Your task to perform on an android device: all mails in gmail Image 0: 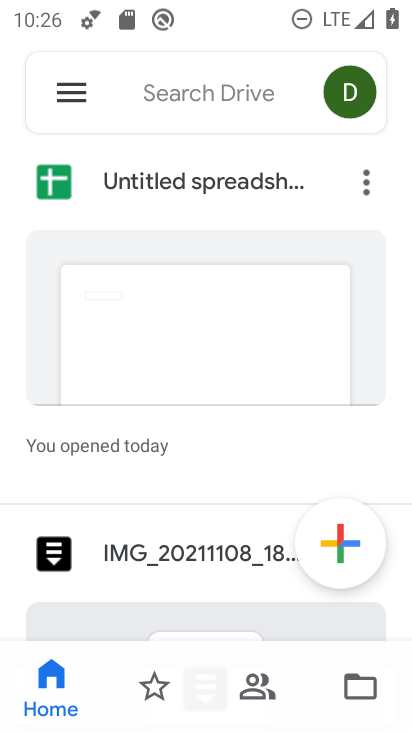
Step 0: press home button
Your task to perform on an android device: all mails in gmail Image 1: 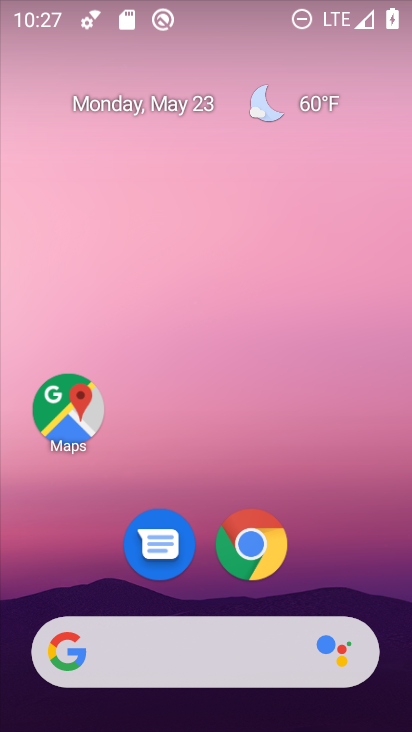
Step 1: drag from (348, 536) to (197, 156)
Your task to perform on an android device: all mails in gmail Image 2: 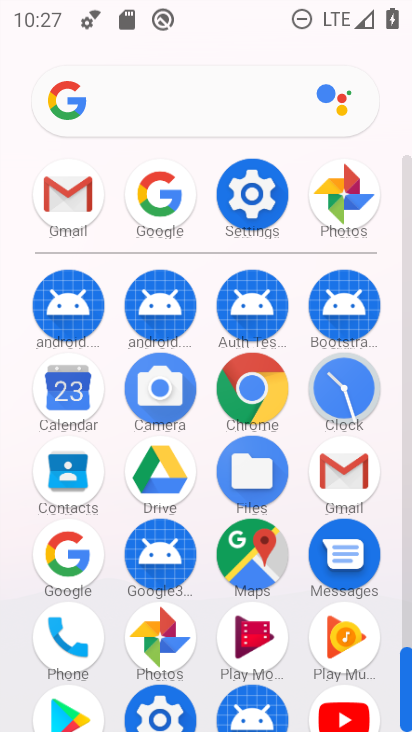
Step 2: click (71, 205)
Your task to perform on an android device: all mails in gmail Image 3: 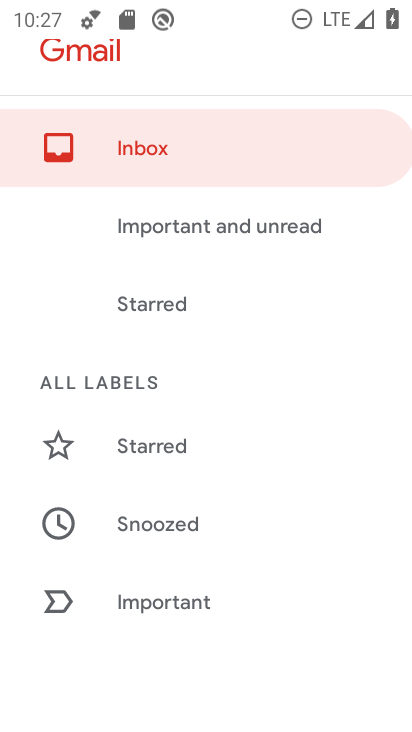
Step 3: drag from (266, 364) to (234, 113)
Your task to perform on an android device: all mails in gmail Image 4: 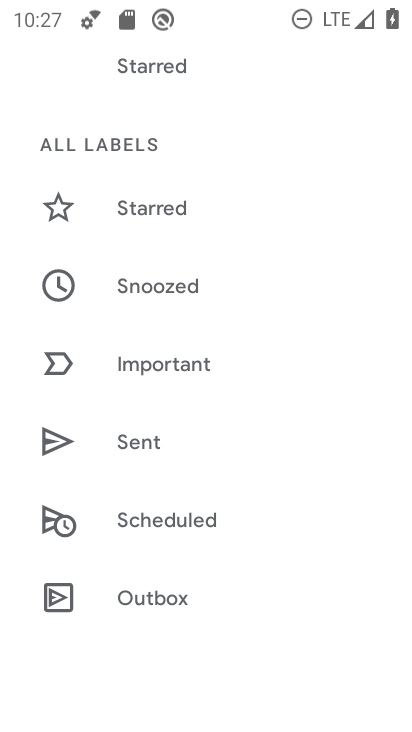
Step 4: drag from (236, 604) to (218, 258)
Your task to perform on an android device: all mails in gmail Image 5: 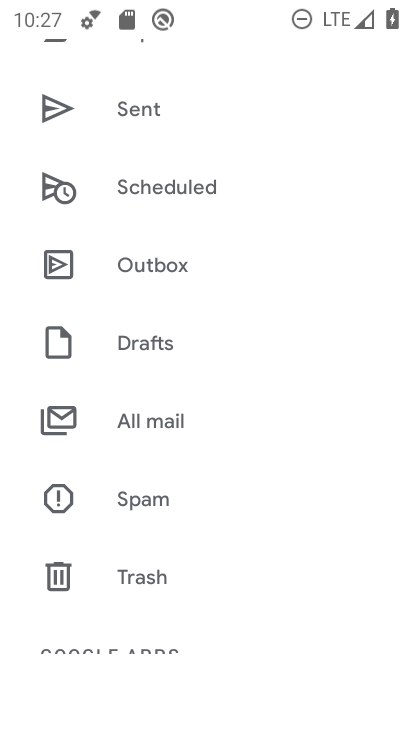
Step 5: click (145, 421)
Your task to perform on an android device: all mails in gmail Image 6: 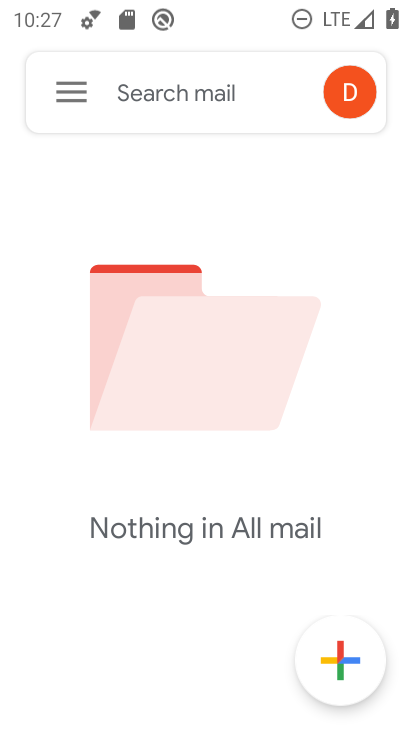
Step 6: task complete